Your task to perform on an android device: turn vacation reply on in the gmail app Image 0: 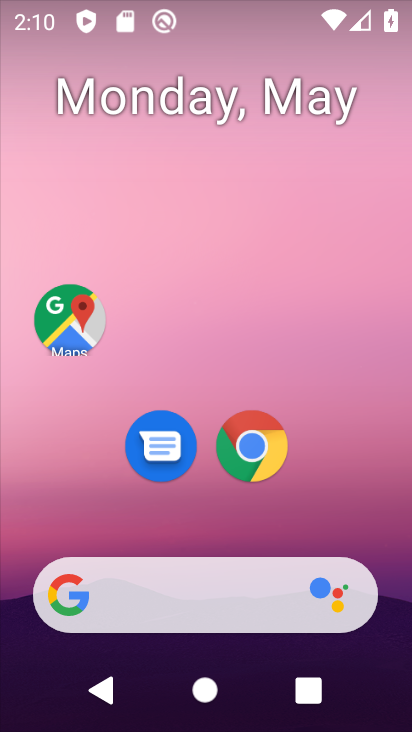
Step 0: drag from (336, 463) to (311, 141)
Your task to perform on an android device: turn vacation reply on in the gmail app Image 1: 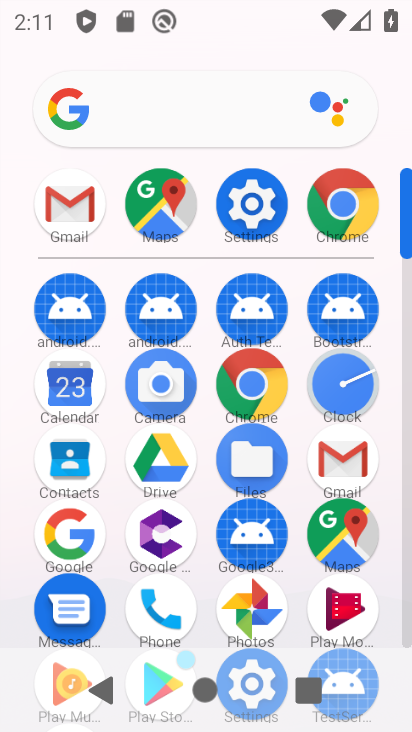
Step 1: click (328, 473)
Your task to perform on an android device: turn vacation reply on in the gmail app Image 2: 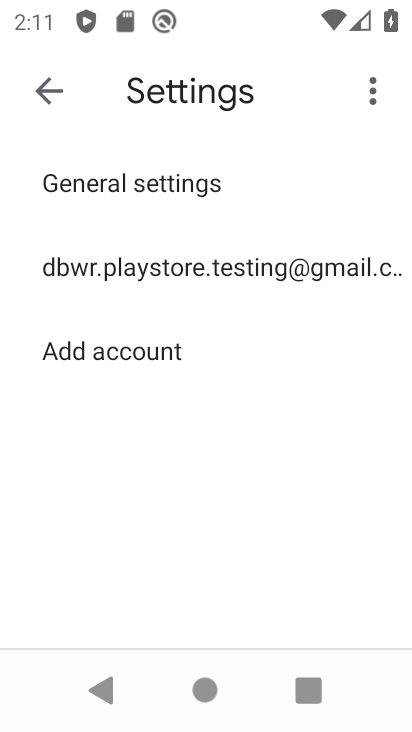
Step 2: click (202, 276)
Your task to perform on an android device: turn vacation reply on in the gmail app Image 3: 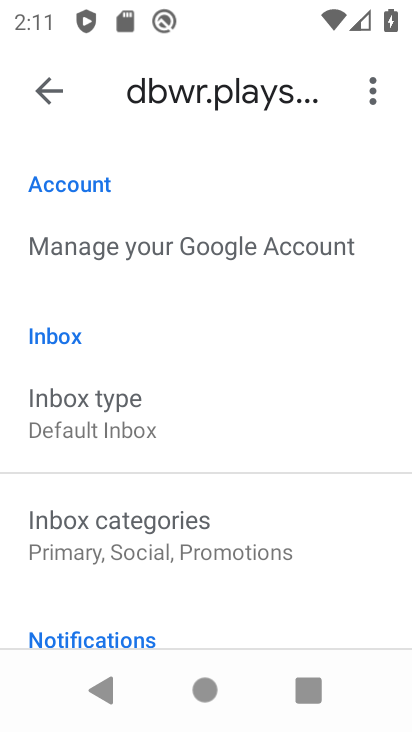
Step 3: drag from (201, 511) to (190, 223)
Your task to perform on an android device: turn vacation reply on in the gmail app Image 4: 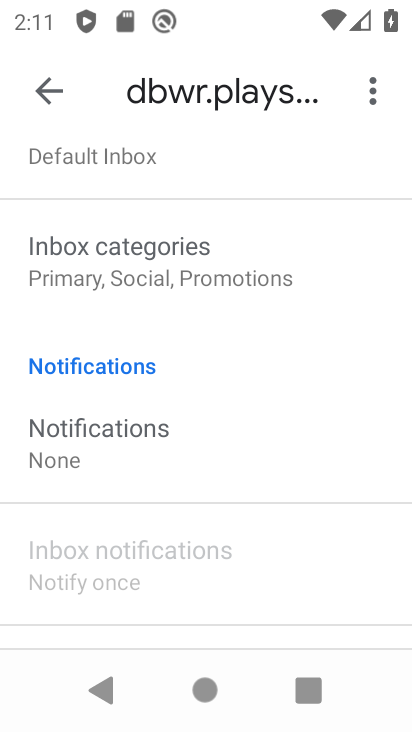
Step 4: drag from (281, 545) to (248, 228)
Your task to perform on an android device: turn vacation reply on in the gmail app Image 5: 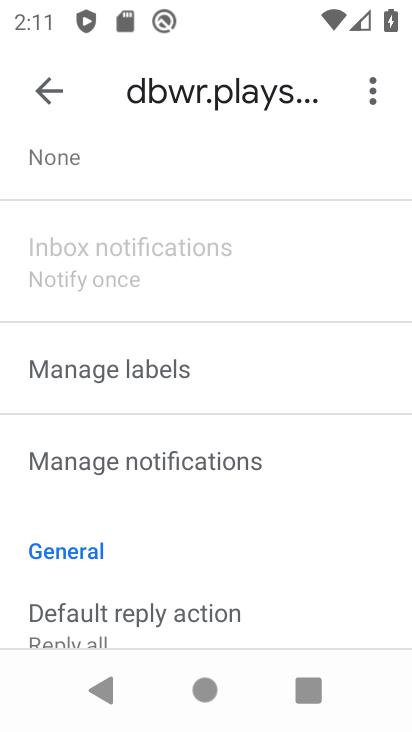
Step 5: drag from (245, 546) to (246, 153)
Your task to perform on an android device: turn vacation reply on in the gmail app Image 6: 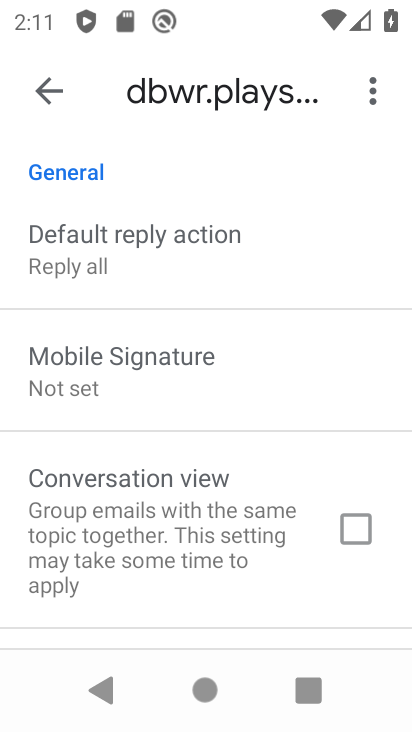
Step 6: drag from (241, 513) to (262, 115)
Your task to perform on an android device: turn vacation reply on in the gmail app Image 7: 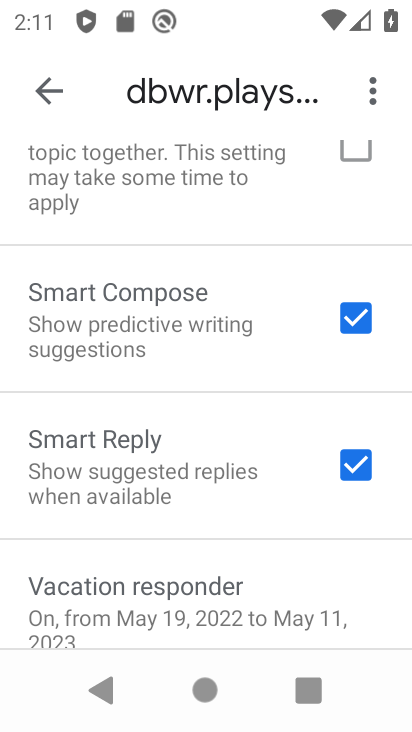
Step 7: click (191, 584)
Your task to perform on an android device: turn vacation reply on in the gmail app Image 8: 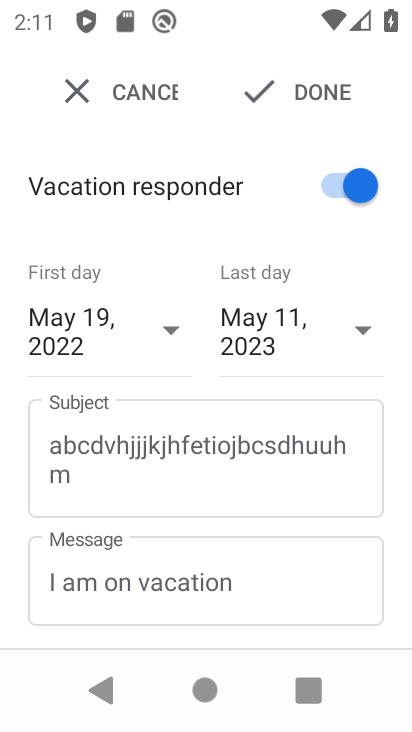
Step 8: task complete